Your task to perform on an android device: change notifications settings Image 0: 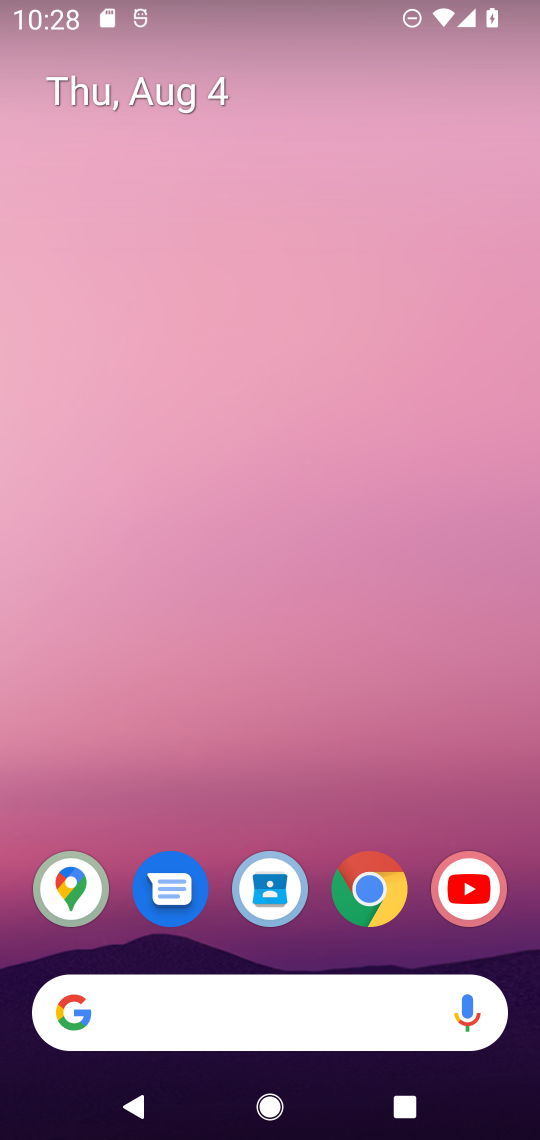
Step 0: drag from (418, 809) to (417, 282)
Your task to perform on an android device: change notifications settings Image 1: 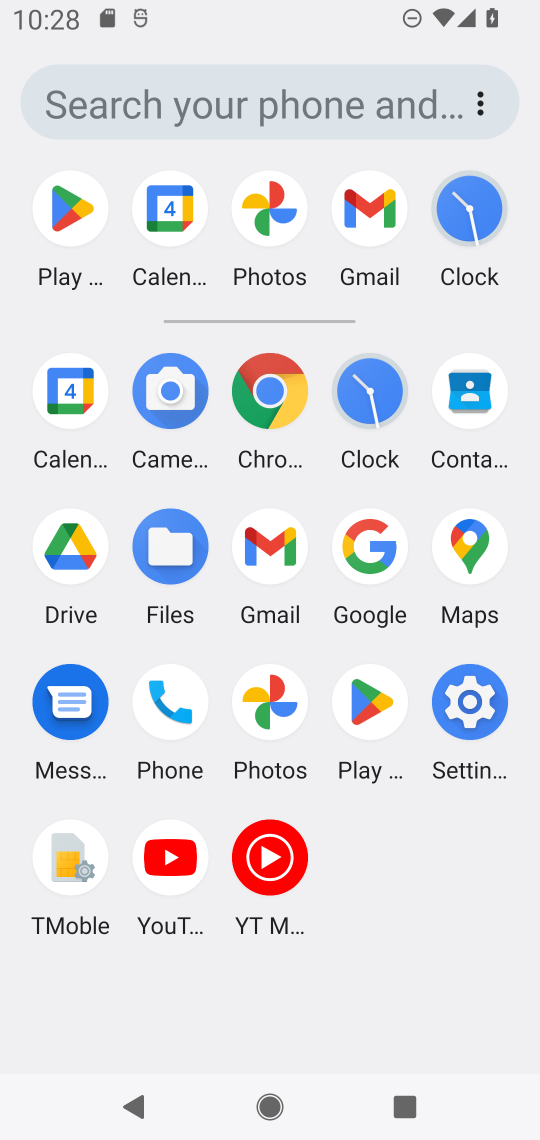
Step 1: click (482, 715)
Your task to perform on an android device: change notifications settings Image 2: 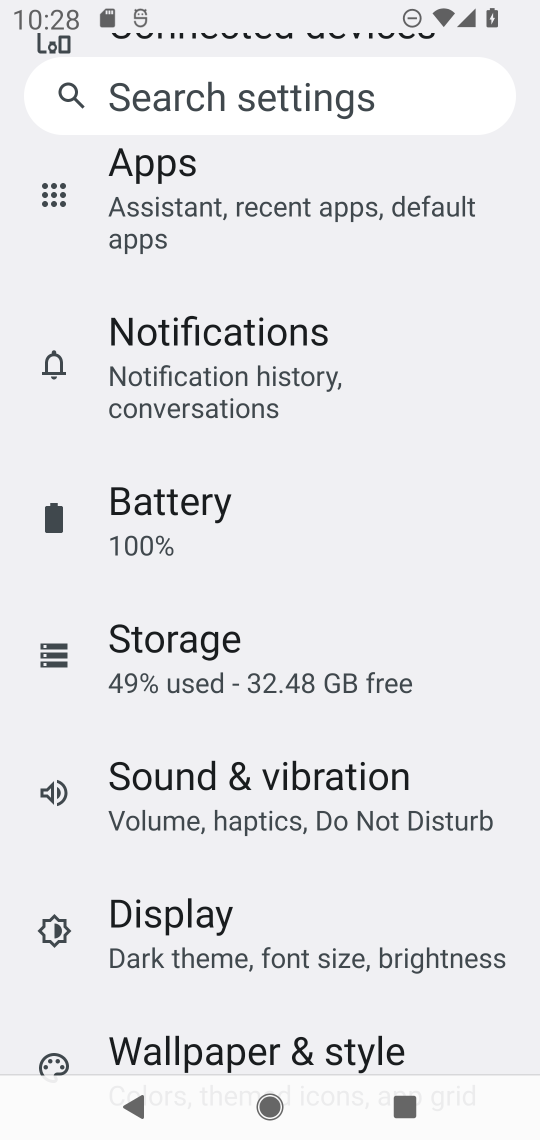
Step 2: drag from (399, 427) to (428, 524)
Your task to perform on an android device: change notifications settings Image 3: 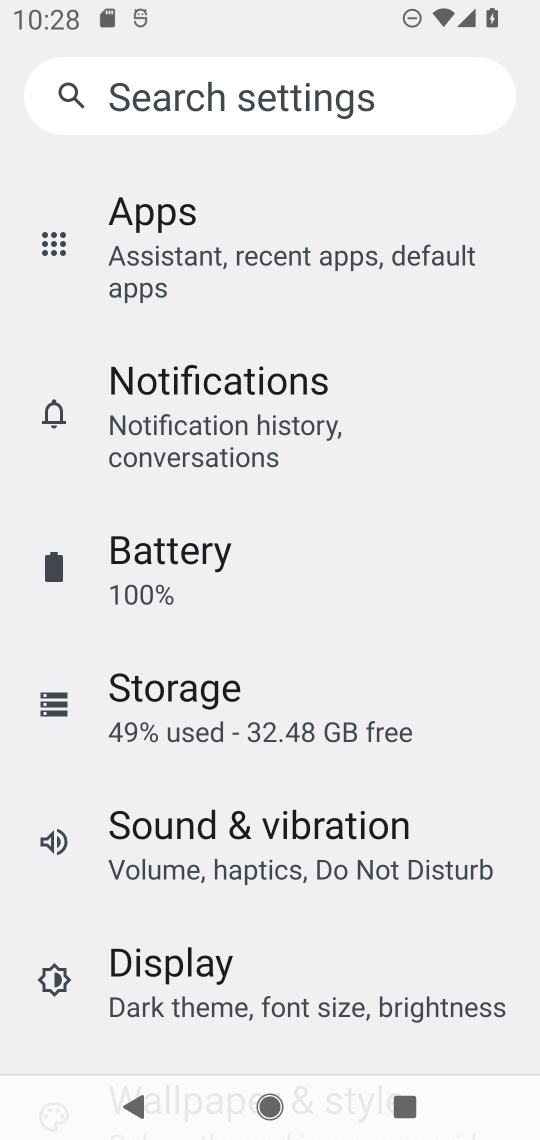
Step 3: drag from (450, 347) to (456, 537)
Your task to perform on an android device: change notifications settings Image 4: 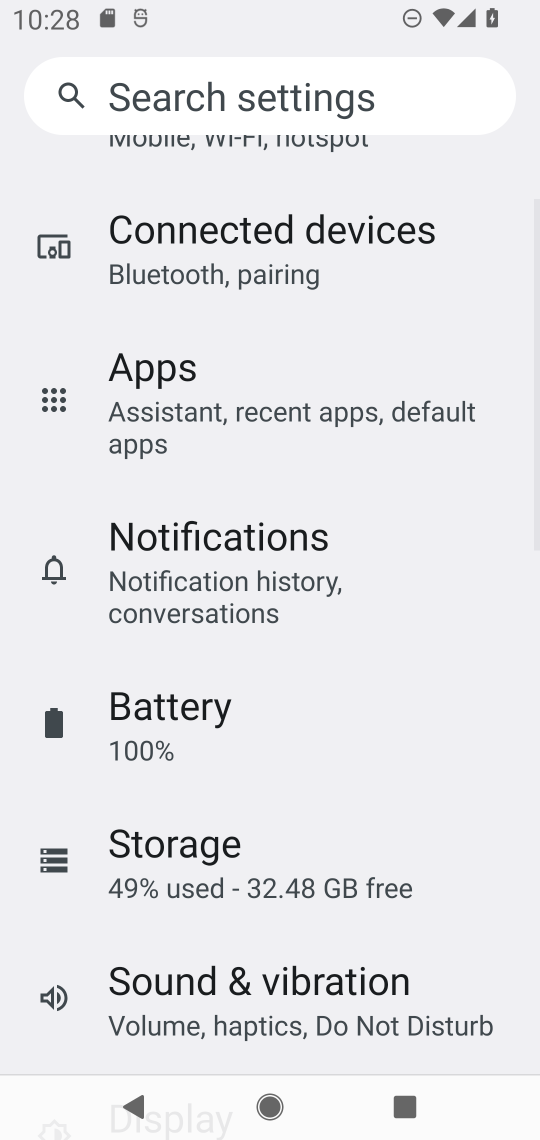
Step 4: click (348, 575)
Your task to perform on an android device: change notifications settings Image 5: 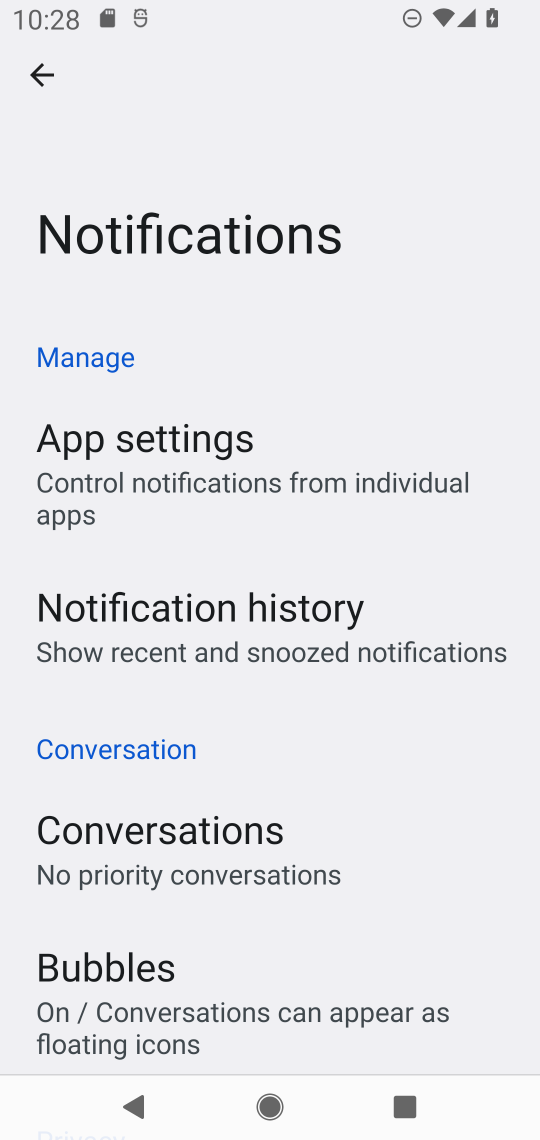
Step 5: drag from (402, 739) to (415, 650)
Your task to perform on an android device: change notifications settings Image 6: 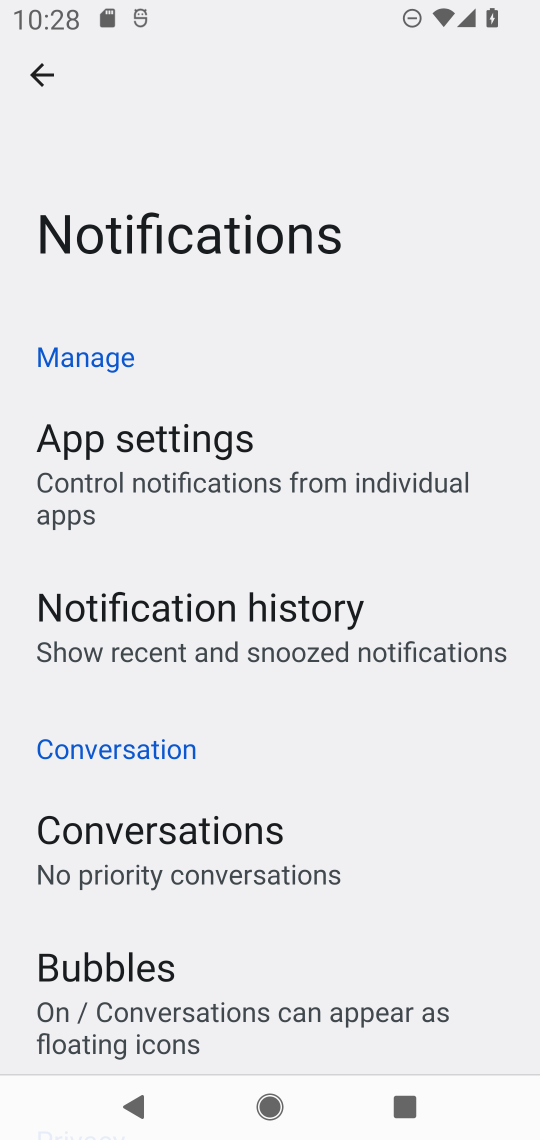
Step 6: click (315, 353)
Your task to perform on an android device: change notifications settings Image 7: 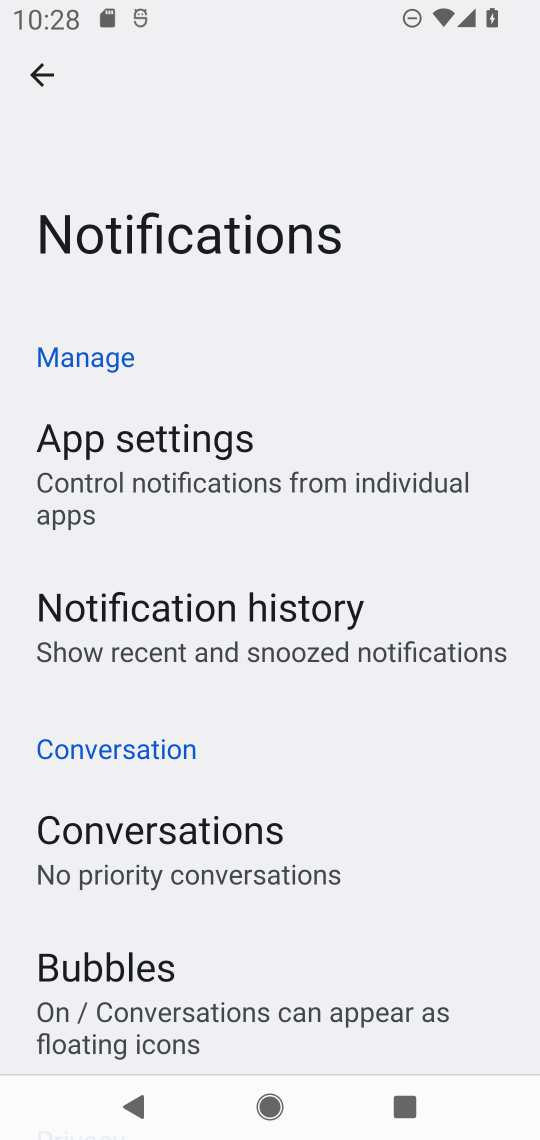
Step 7: click (320, 496)
Your task to perform on an android device: change notifications settings Image 8: 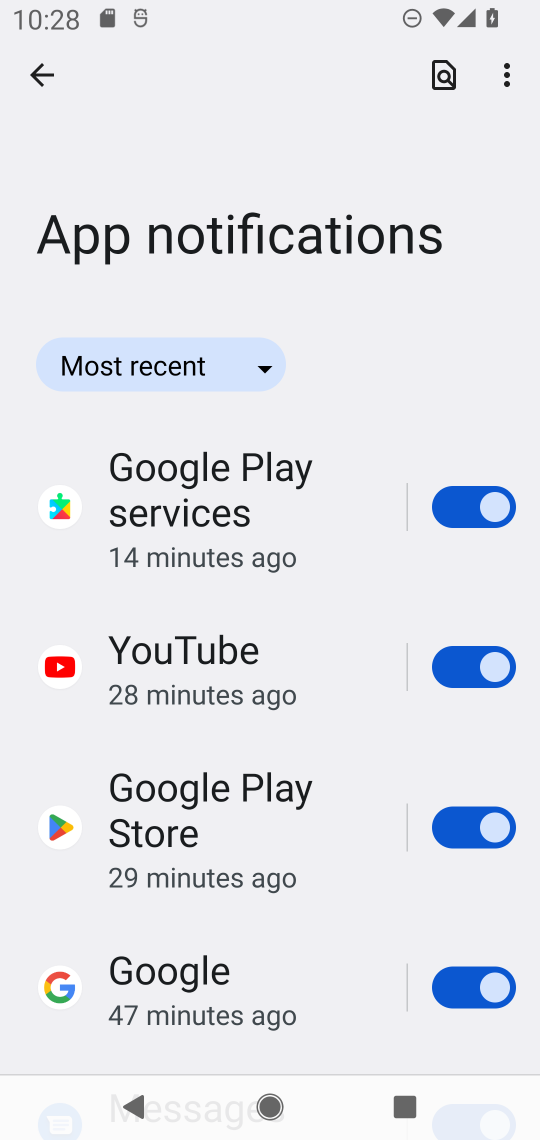
Step 8: click (452, 520)
Your task to perform on an android device: change notifications settings Image 9: 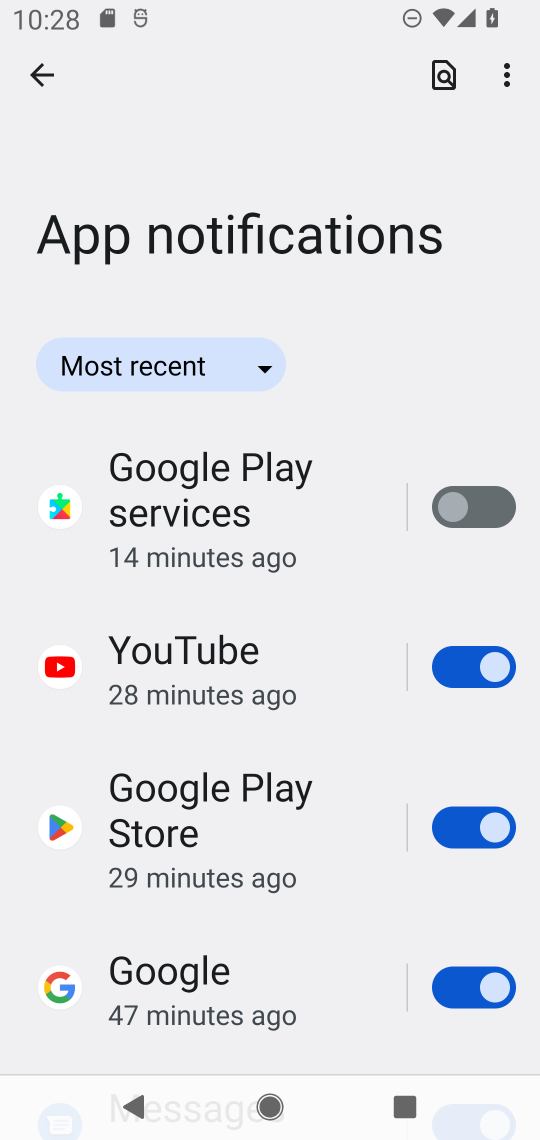
Step 9: click (452, 678)
Your task to perform on an android device: change notifications settings Image 10: 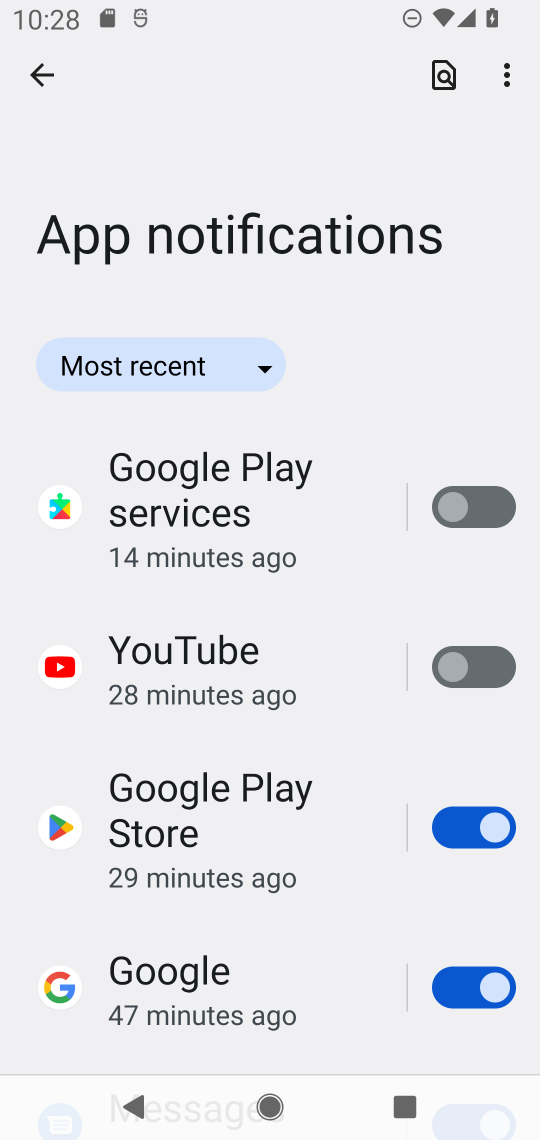
Step 10: click (483, 848)
Your task to perform on an android device: change notifications settings Image 11: 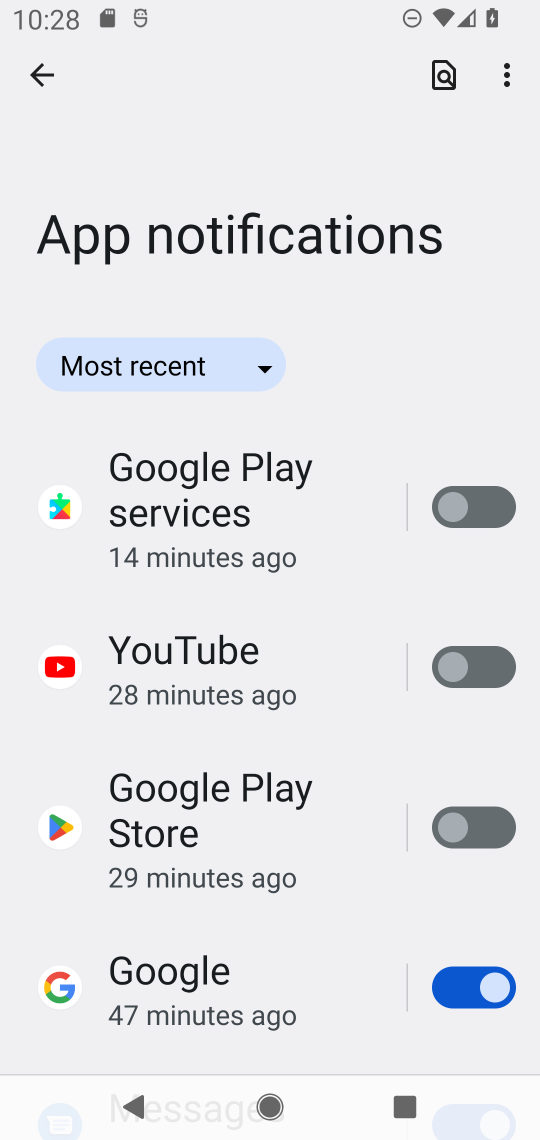
Step 11: click (446, 979)
Your task to perform on an android device: change notifications settings Image 12: 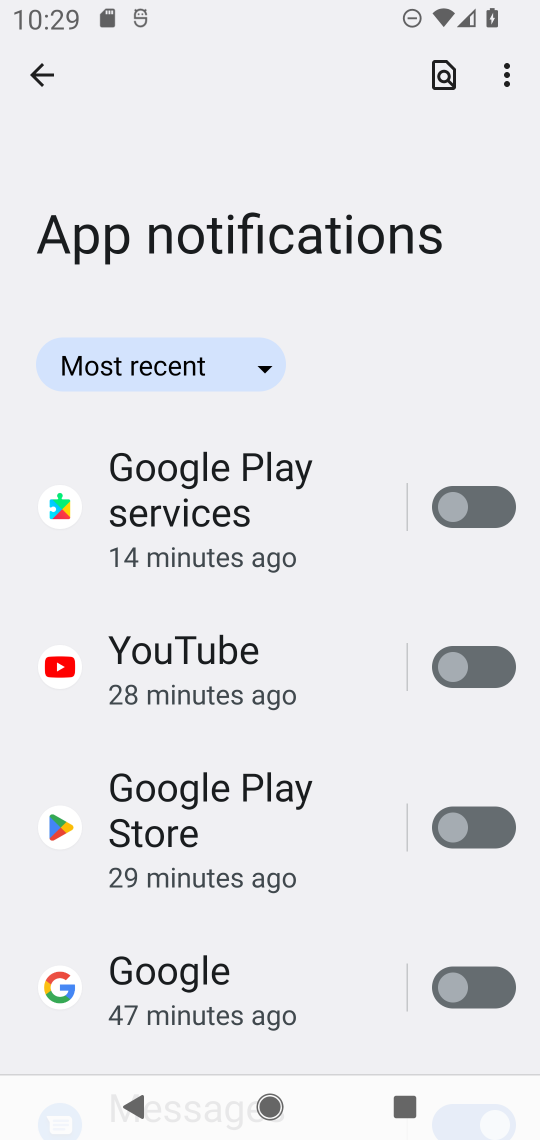
Step 12: task complete